Your task to perform on an android device: clear history in the chrome app Image 0: 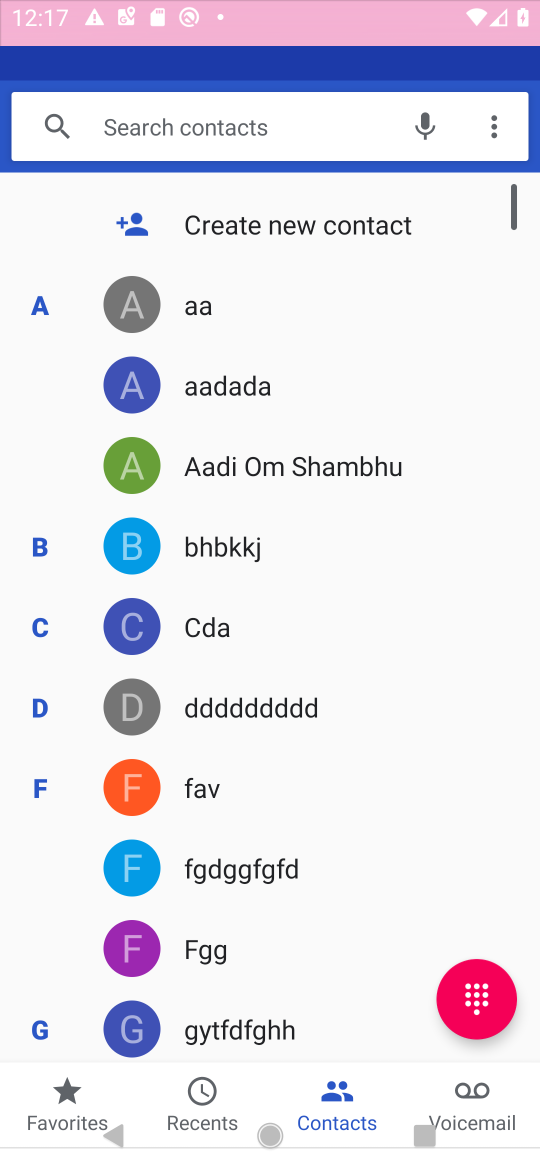
Step 0: click (383, 931)
Your task to perform on an android device: clear history in the chrome app Image 1: 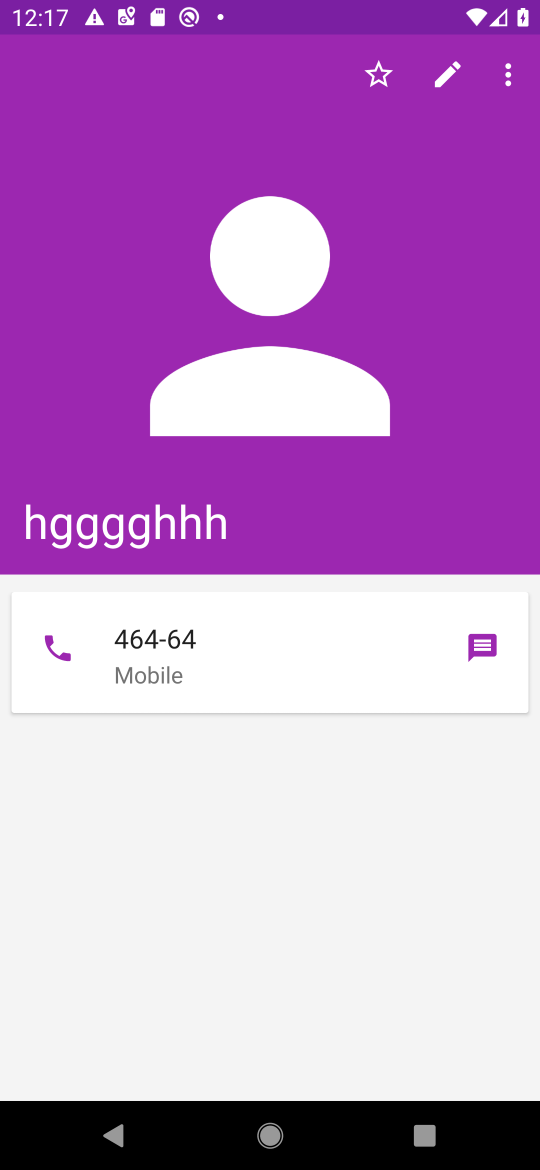
Step 1: press home button
Your task to perform on an android device: clear history in the chrome app Image 2: 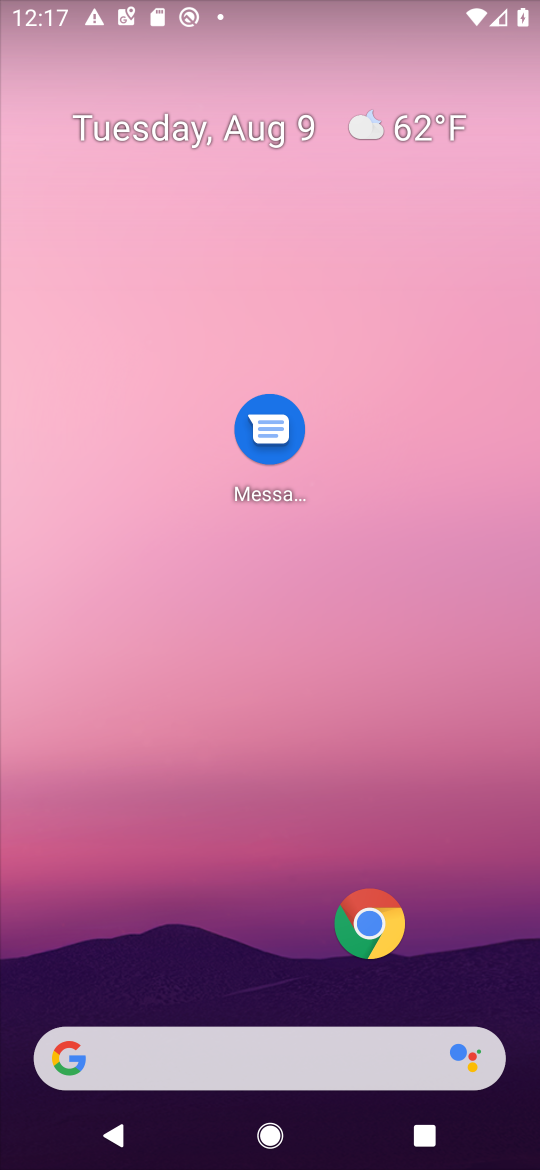
Step 2: click (371, 938)
Your task to perform on an android device: clear history in the chrome app Image 3: 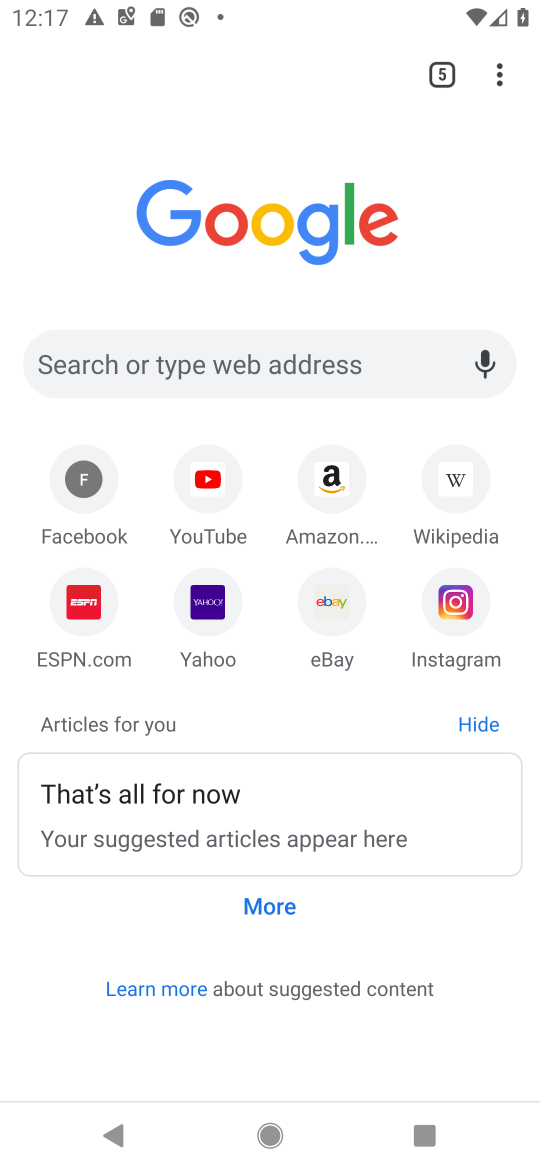
Step 3: click (503, 69)
Your task to perform on an android device: clear history in the chrome app Image 4: 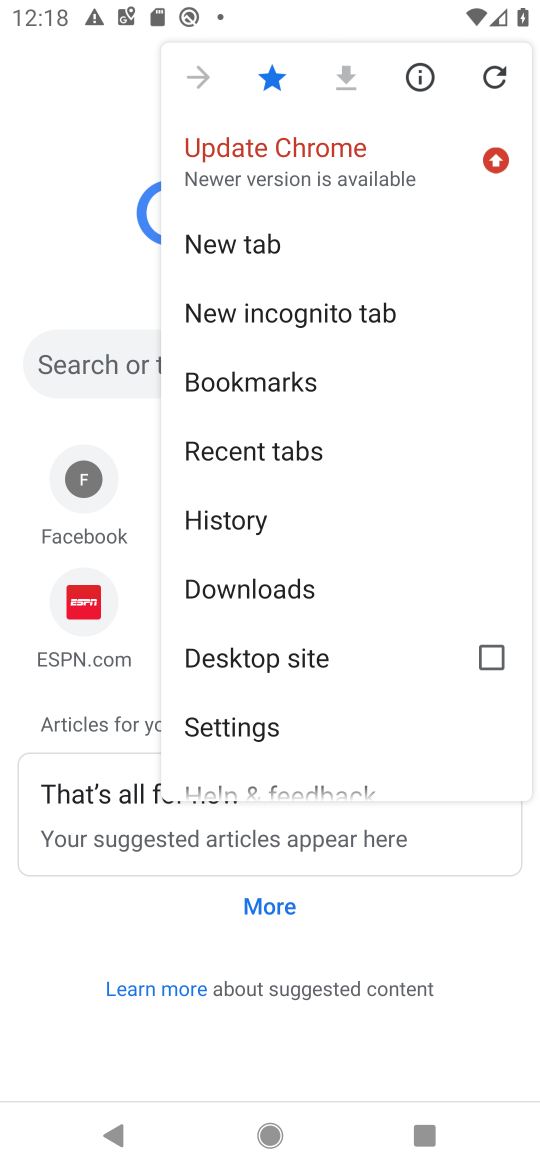
Step 4: click (251, 511)
Your task to perform on an android device: clear history in the chrome app Image 5: 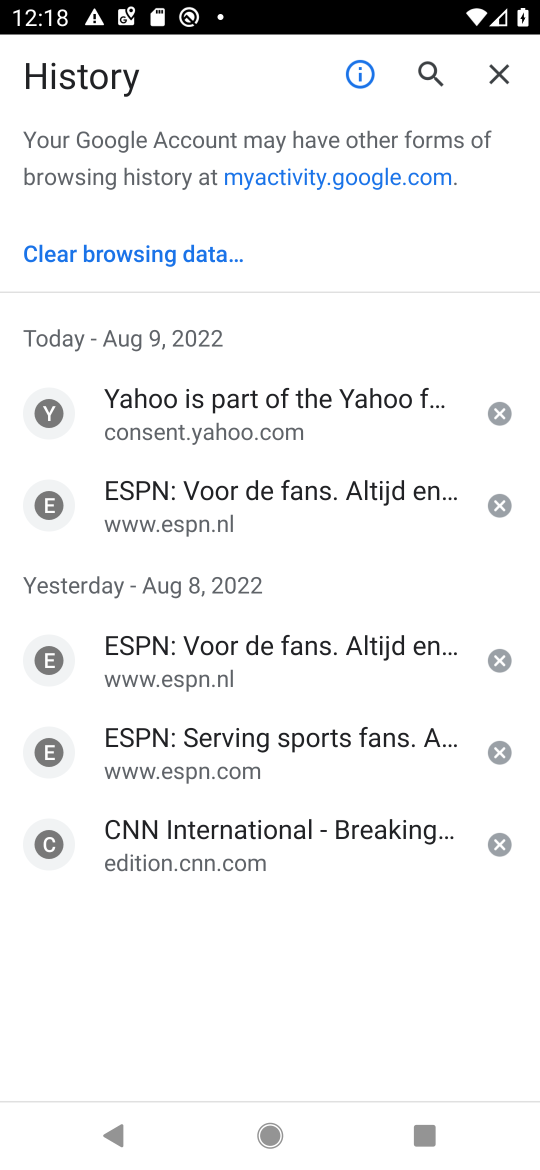
Step 5: click (140, 248)
Your task to perform on an android device: clear history in the chrome app Image 6: 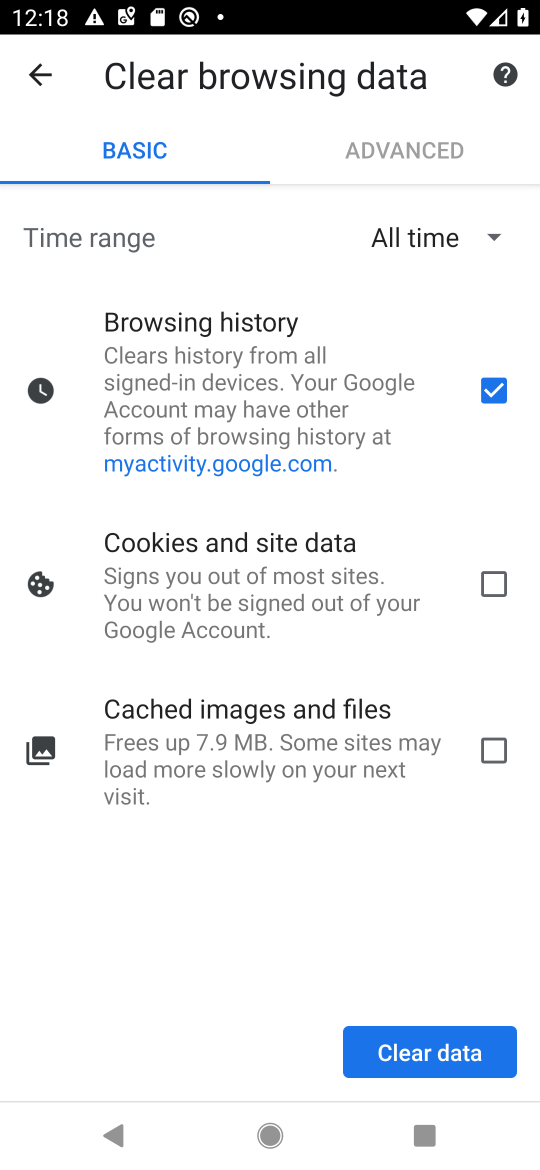
Step 6: click (456, 1056)
Your task to perform on an android device: clear history in the chrome app Image 7: 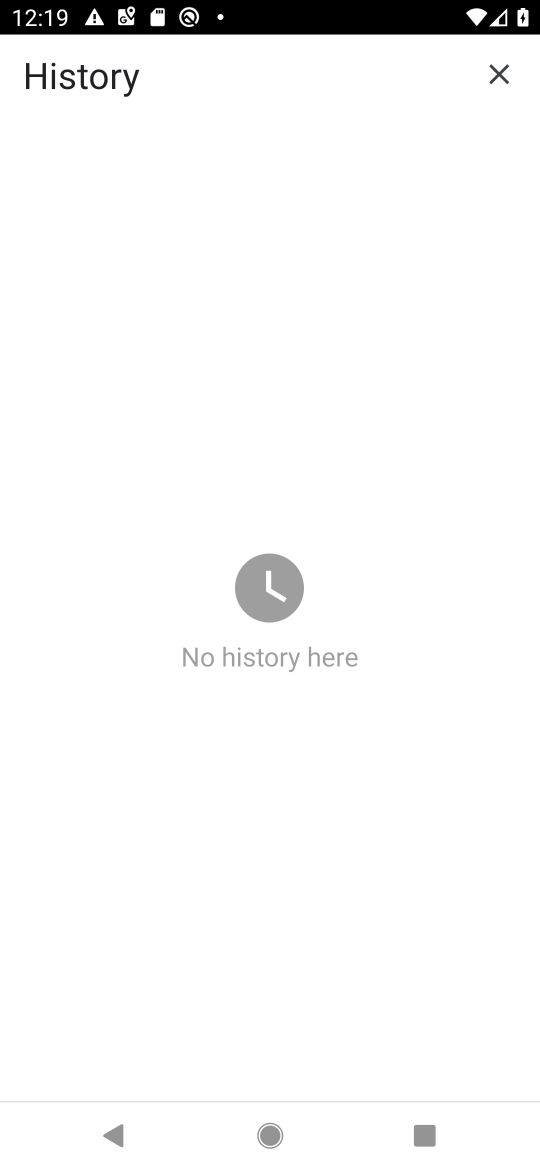
Step 7: task complete